Your task to perform on an android device: Open notification settings Image 0: 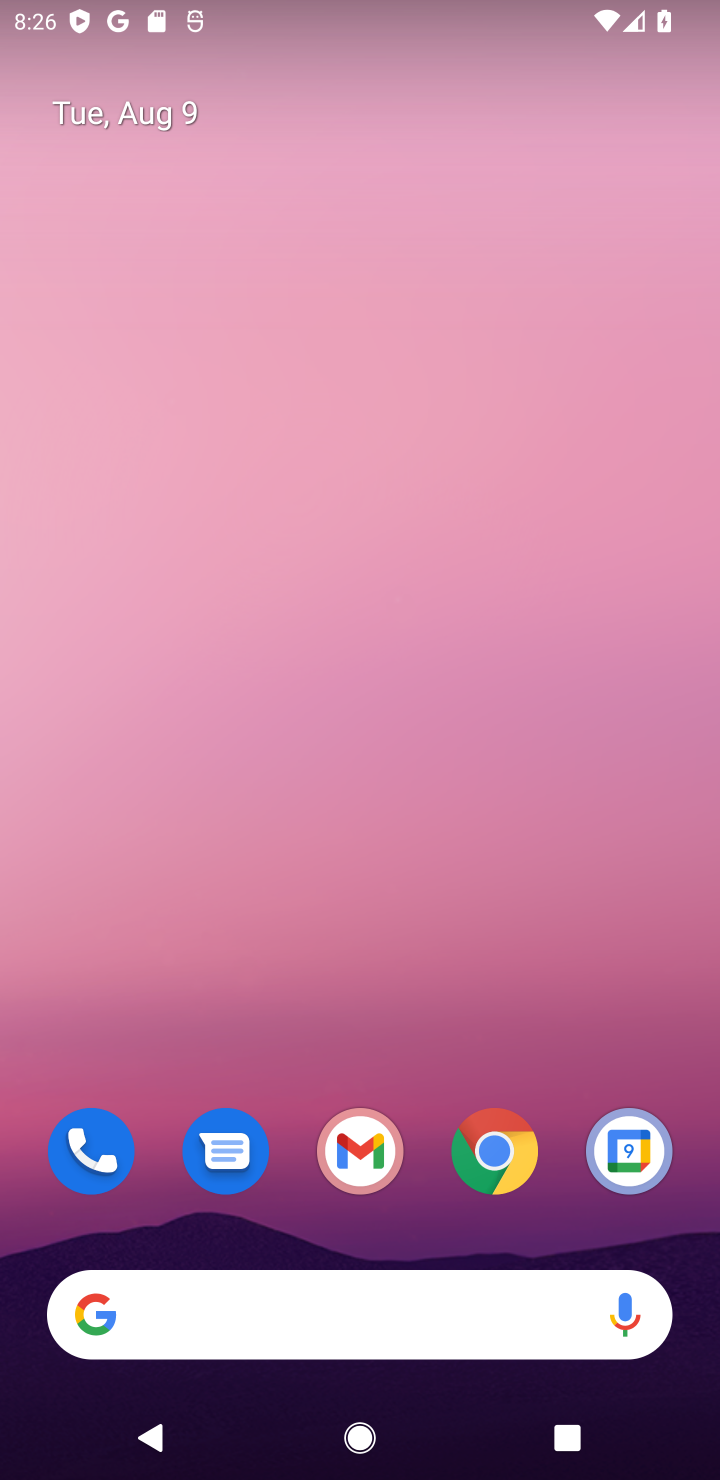
Step 0: drag from (295, 1217) to (402, 138)
Your task to perform on an android device: Open notification settings Image 1: 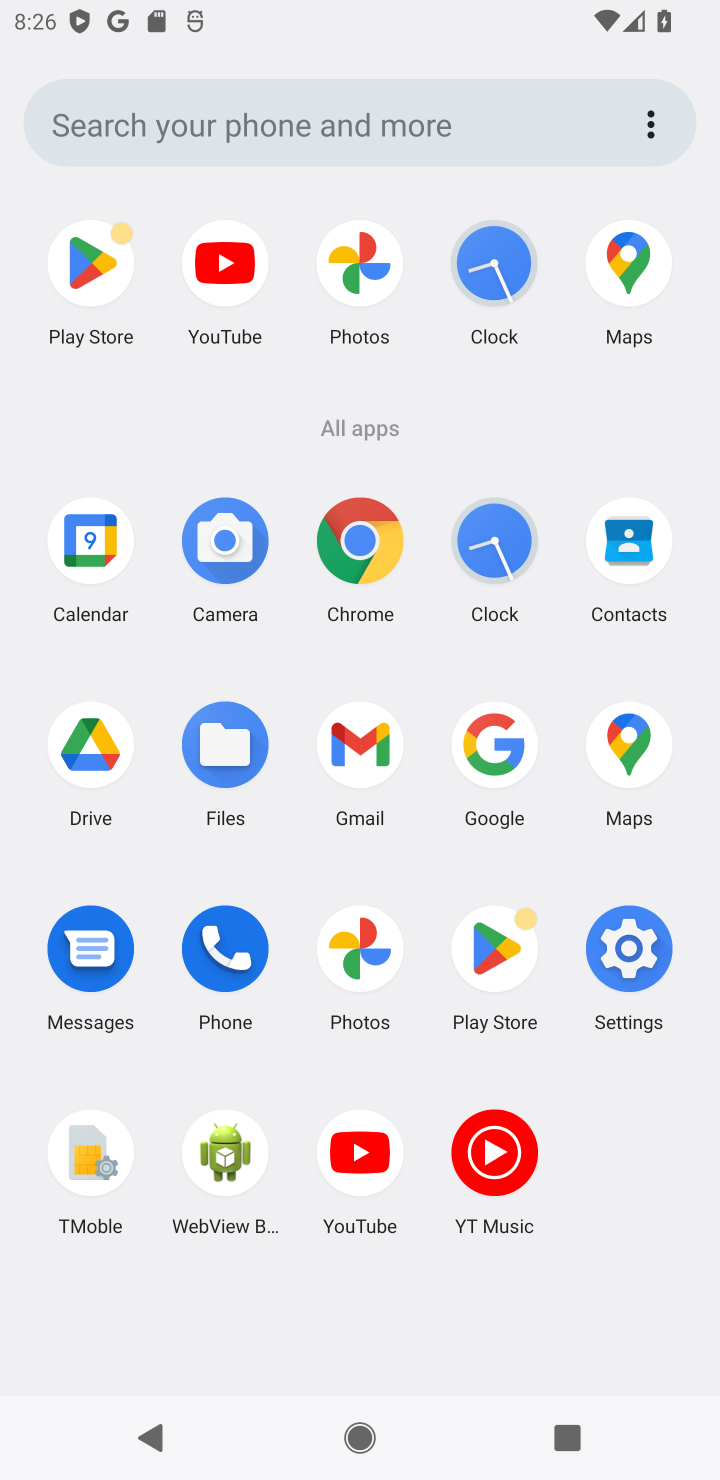
Step 1: click (629, 959)
Your task to perform on an android device: Open notification settings Image 2: 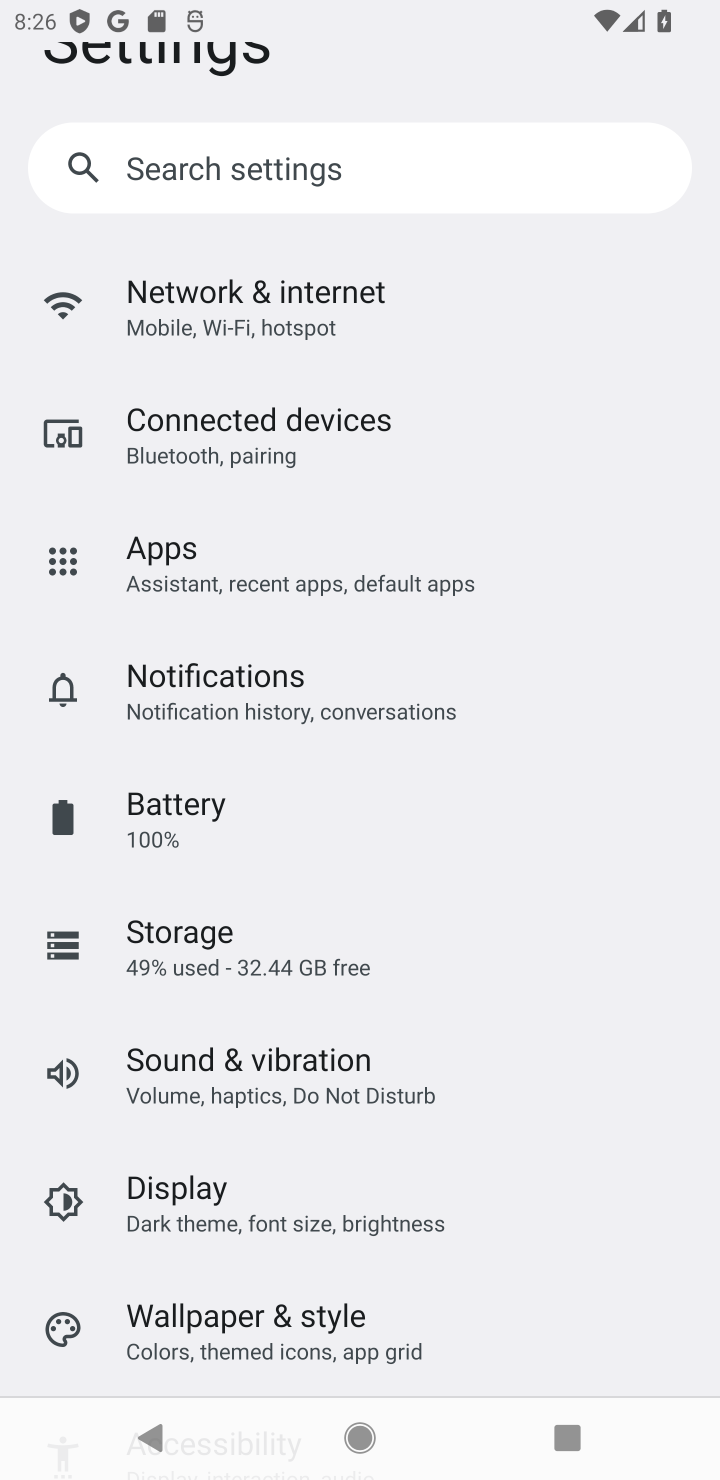
Step 2: click (341, 701)
Your task to perform on an android device: Open notification settings Image 3: 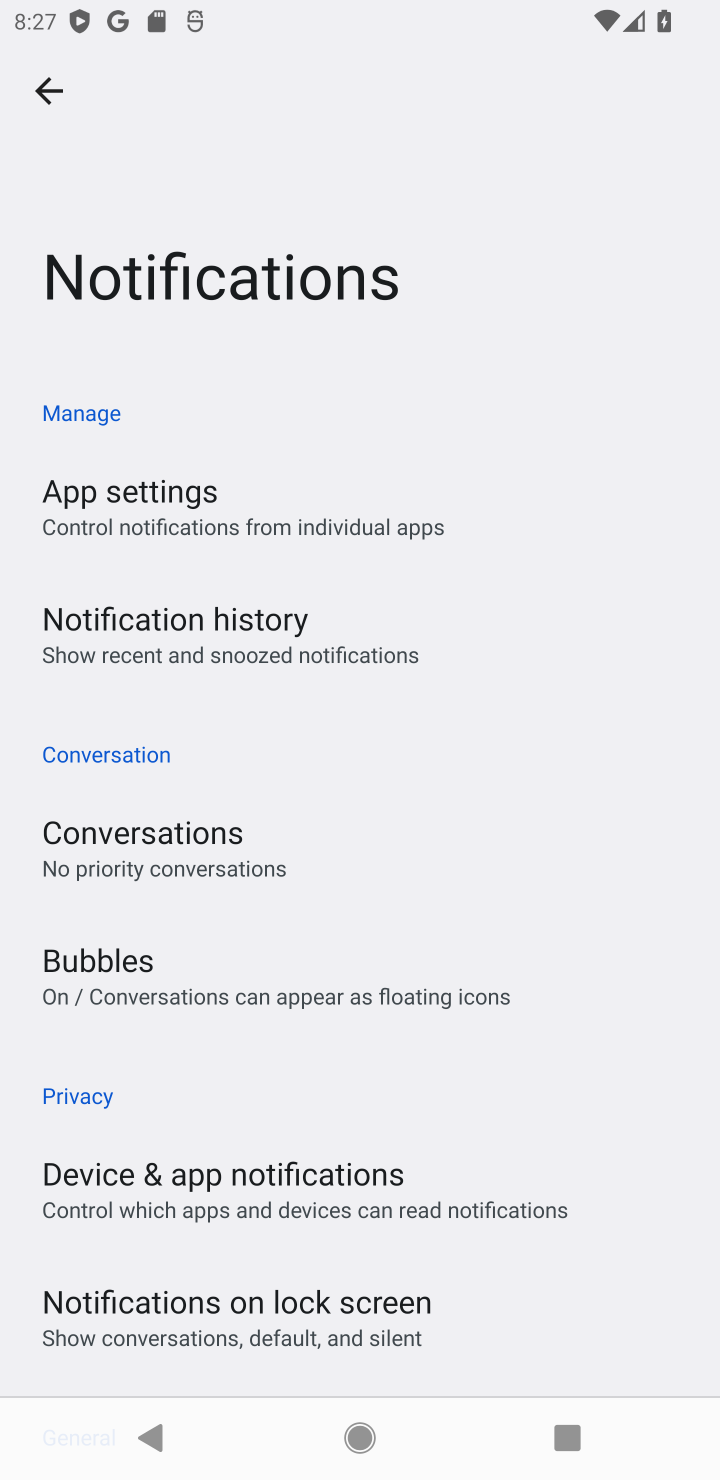
Step 3: click (195, 632)
Your task to perform on an android device: Open notification settings Image 4: 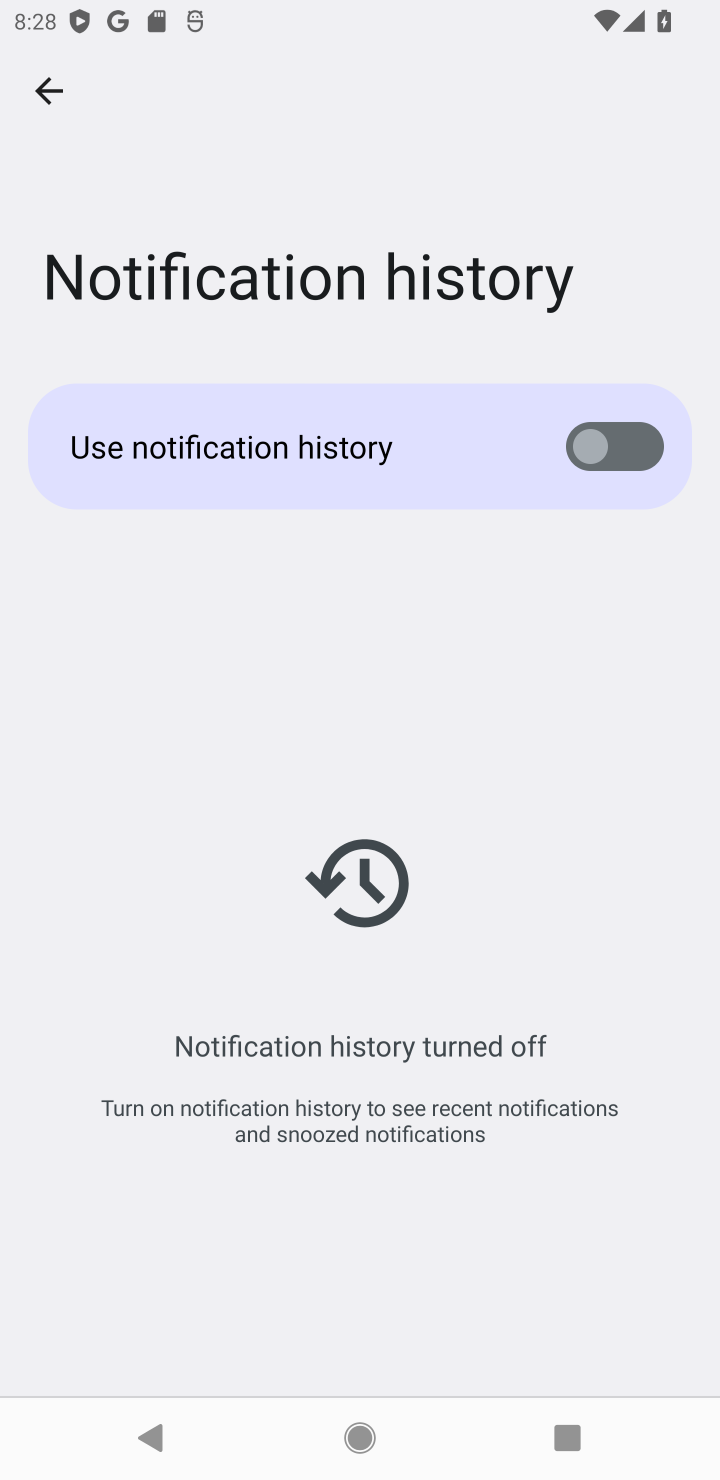
Step 4: task complete